Your task to perform on an android device: Clear the shopping cart on bestbuy. Search for "lg ultragear" on bestbuy, select the first entry, add it to the cart, then select checkout. Image 0: 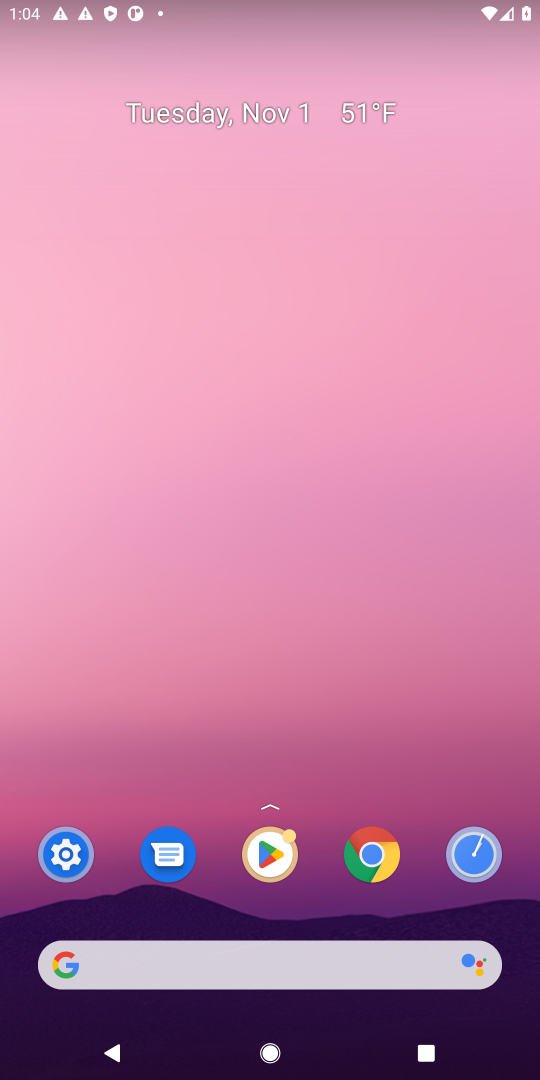
Step 0: click (164, 480)
Your task to perform on an android device: Clear the shopping cart on bestbuy. Search for "lg ultragear" on bestbuy, select the first entry, add it to the cart, then select checkout. Image 1: 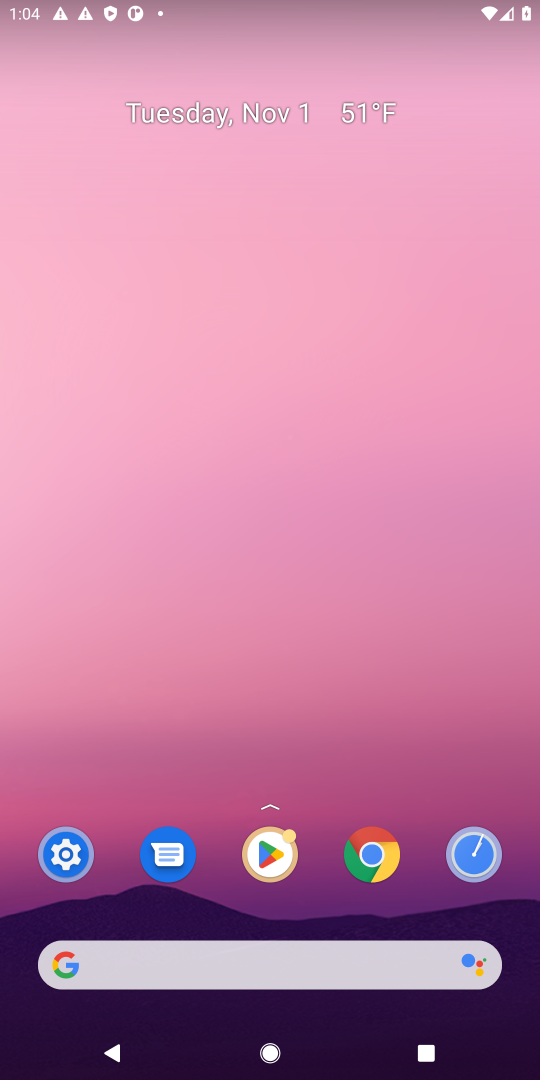
Step 1: click (216, 962)
Your task to perform on an android device: Clear the shopping cart on bestbuy. Search for "lg ultragear" on bestbuy, select the first entry, add it to the cart, then select checkout. Image 2: 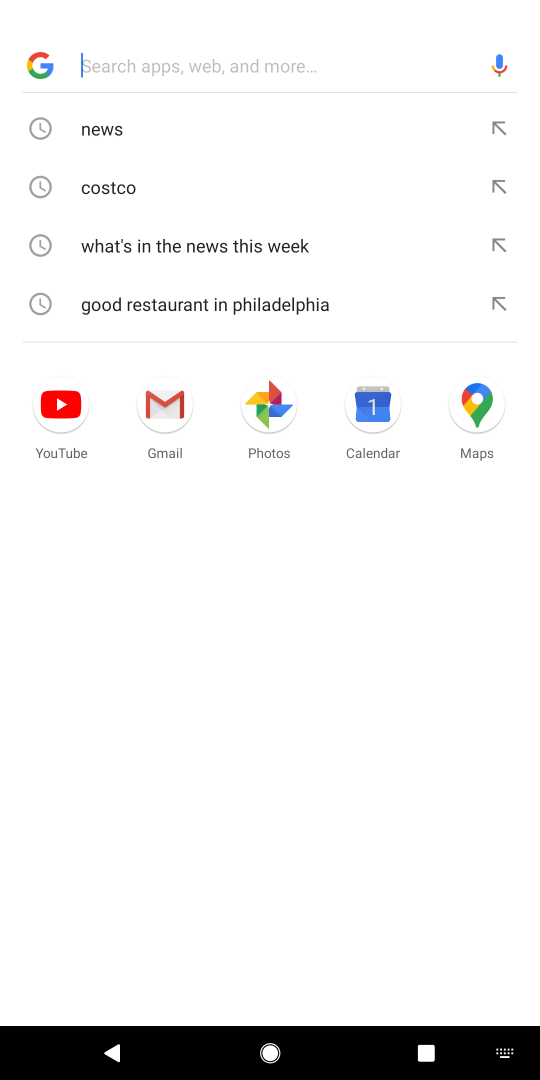
Step 2: type "bestbuy"
Your task to perform on an android device: Clear the shopping cart on bestbuy. Search for "lg ultragear" on bestbuy, select the first entry, add it to the cart, then select checkout. Image 3: 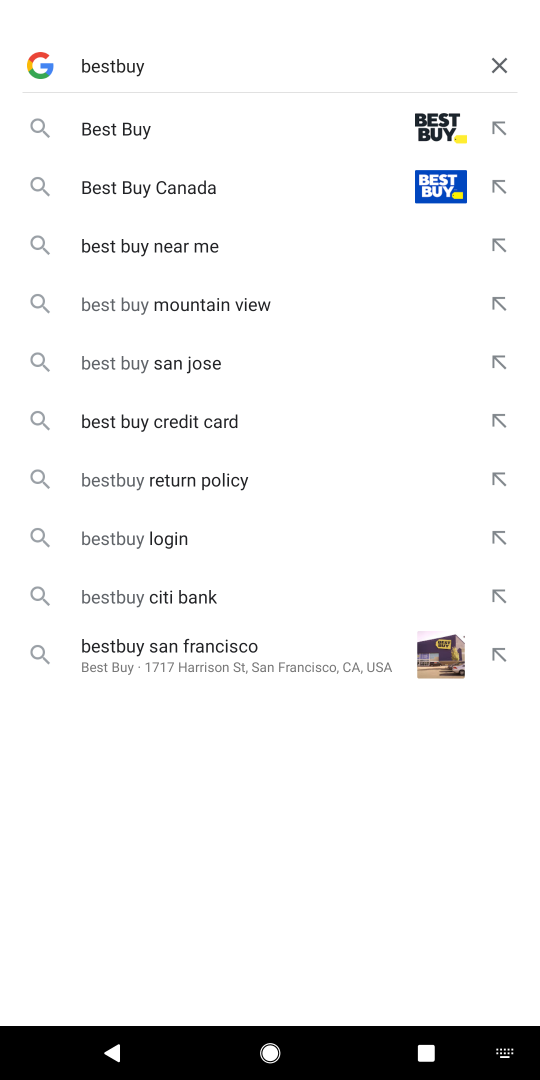
Step 3: click (130, 122)
Your task to perform on an android device: Clear the shopping cart on bestbuy. Search for "lg ultragear" on bestbuy, select the first entry, add it to the cart, then select checkout. Image 4: 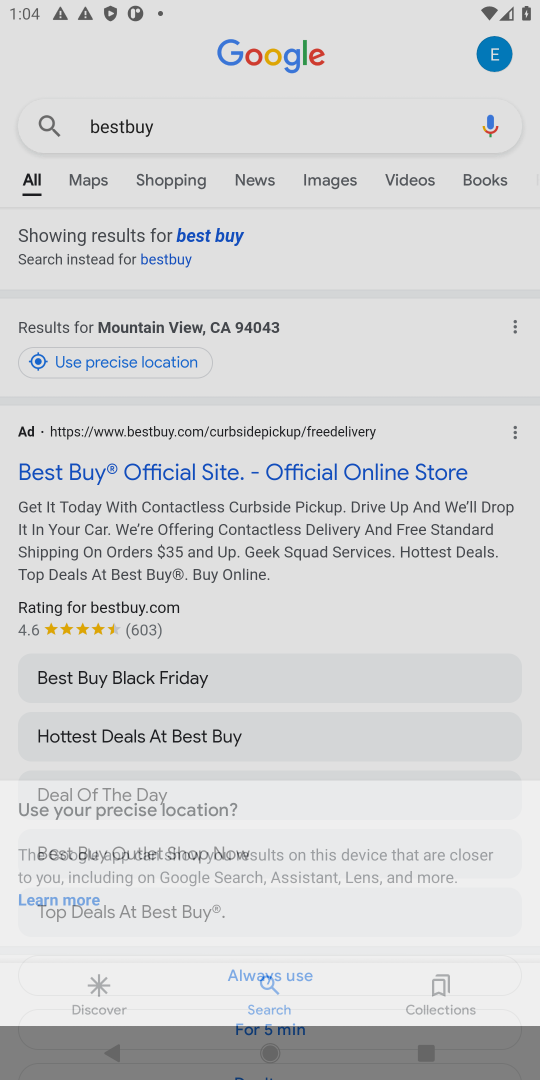
Step 4: click (131, 473)
Your task to perform on an android device: Clear the shopping cart on bestbuy. Search for "lg ultragear" on bestbuy, select the first entry, add it to the cart, then select checkout. Image 5: 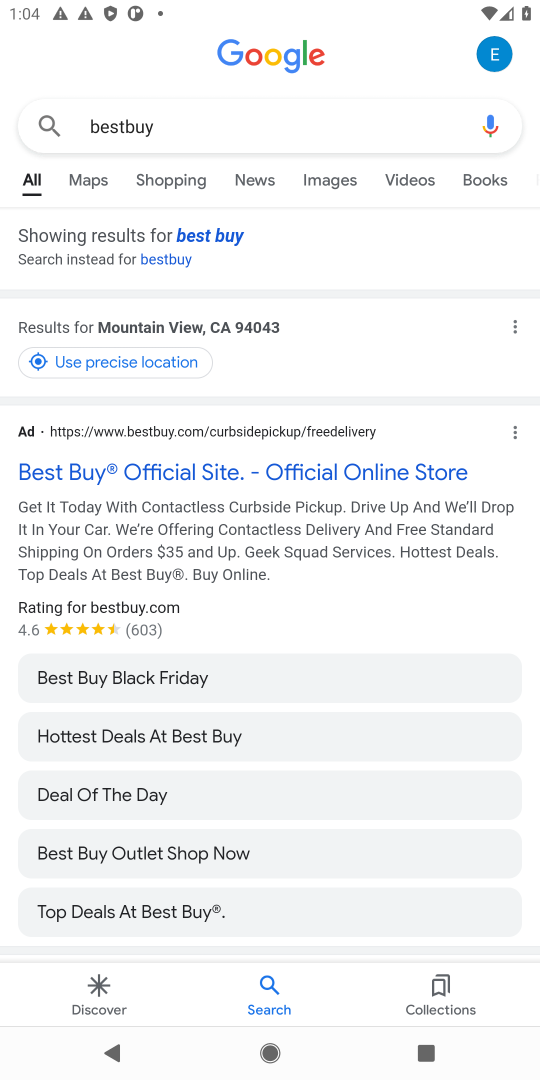
Step 5: click (212, 467)
Your task to perform on an android device: Clear the shopping cart on bestbuy. Search for "lg ultragear" on bestbuy, select the first entry, add it to the cart, then select checkout. Image 6: 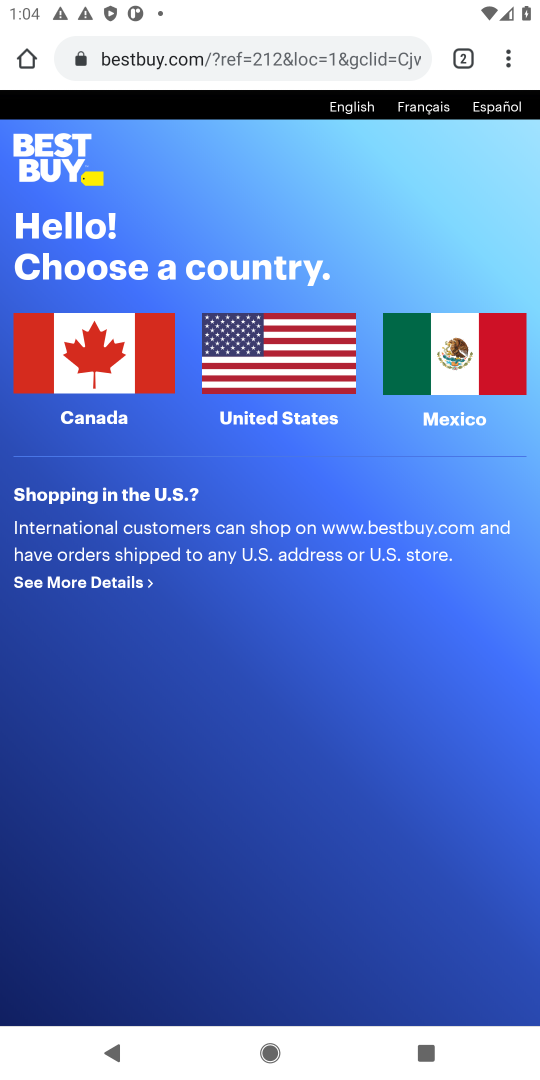
Step 6: click (288, 340)
Your task to perform on an android device: Clear the shopping cart on bestbuy. Search for "lg ultragear" on bestbuy, select the first entry, add it to the cart, then select checkout. Image 7: 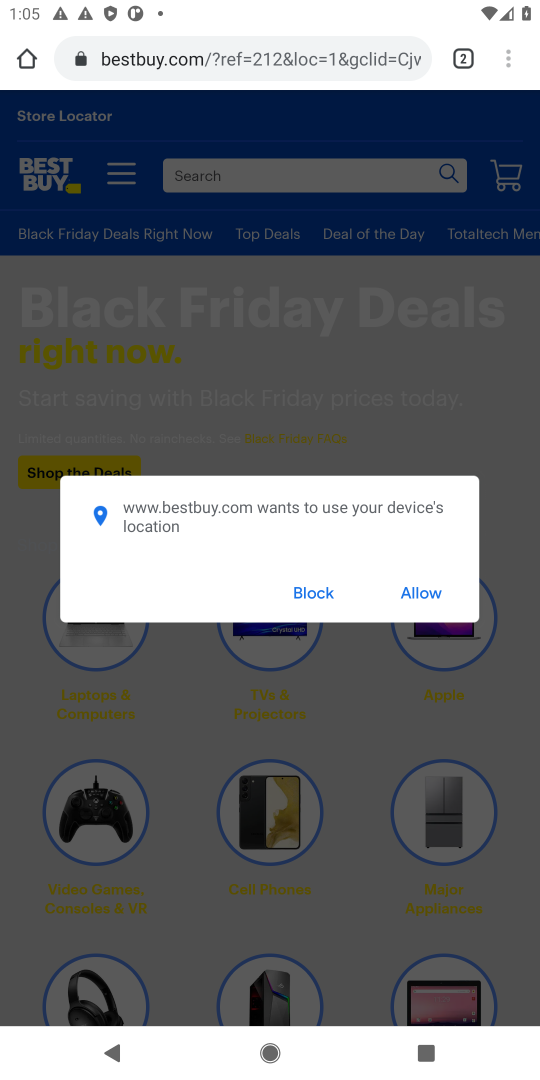
Step 7: click (277, 157)
Your task to perform on an android device: Clear the shopping cart on bestbuy. Search for "lg ultragear" on bestbuy, select the first entry, add it to the cart, then select checkout. Image 8: 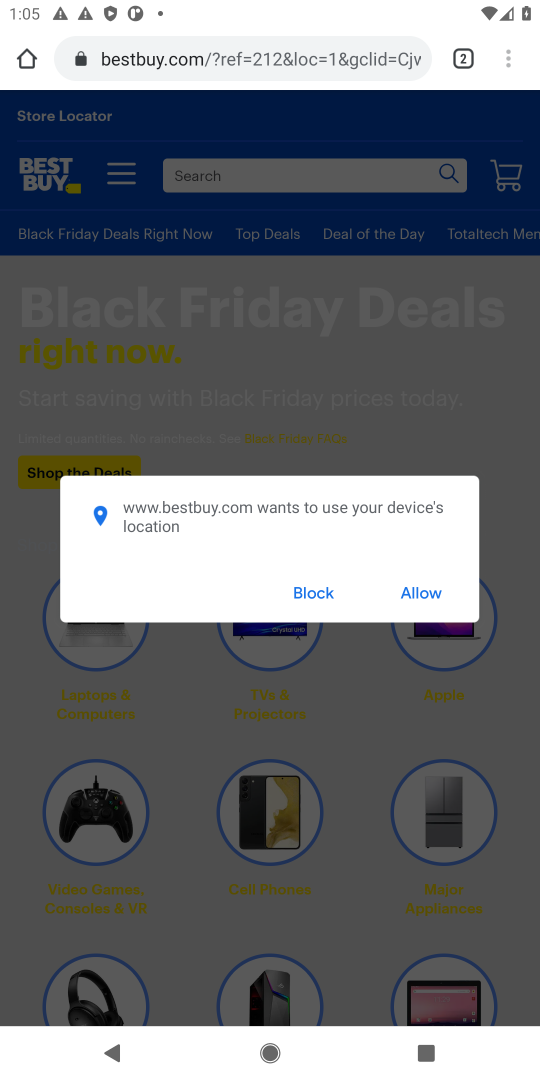
Step 8: click (429, 593)
Your task to perform on an android device: Clear the shopping cart on bestbuy. Search for "lg ultragear" on bestbuy, select the first entry, add it to the cart, then select checkout. Image 9: 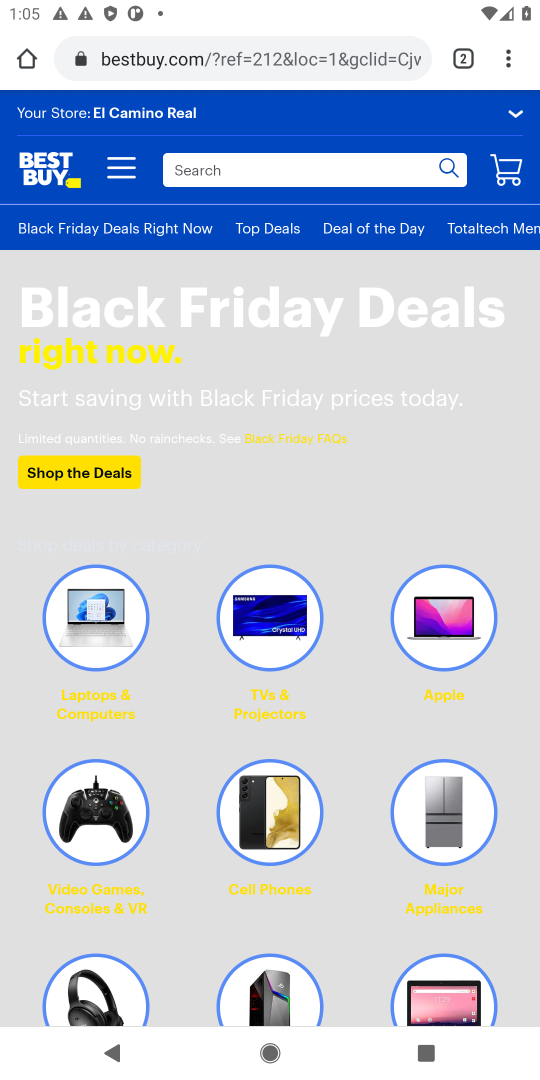
Step 9: click (288, 160)
Your task to perform on an android device: Clear the shopping cart on bestbuy. Search for "lg ultragear" on bestbuy, select the first entry, add it to the cart, then select checkout. Image 10: 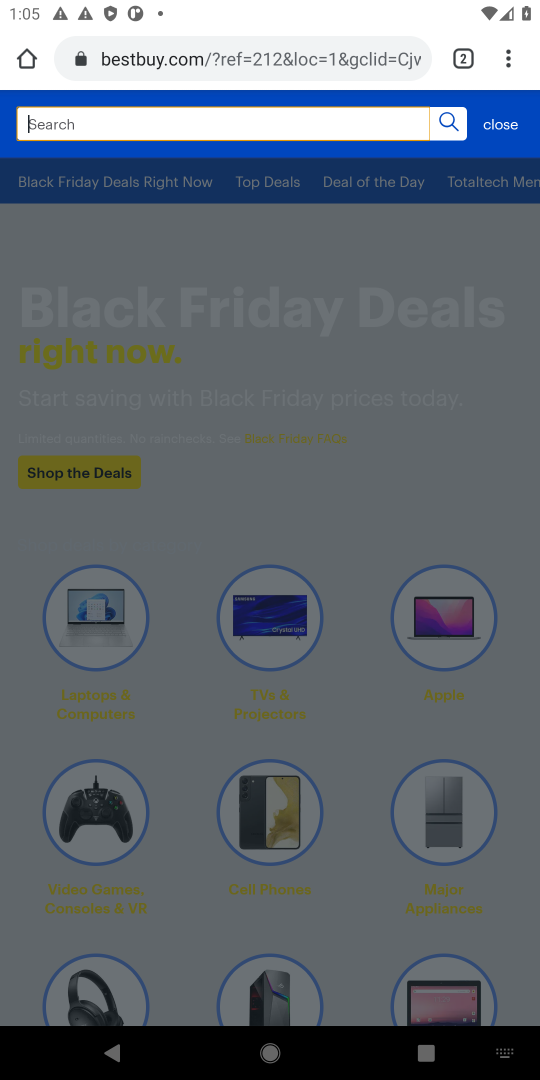
Step 10: type "lg u"
Your task to perform on an android device: Clear the shopping cart on bestbuy. Search for "lg ultragear" on bestbuy, select the first entry, add it to the cart, then select checkout. Image 11: 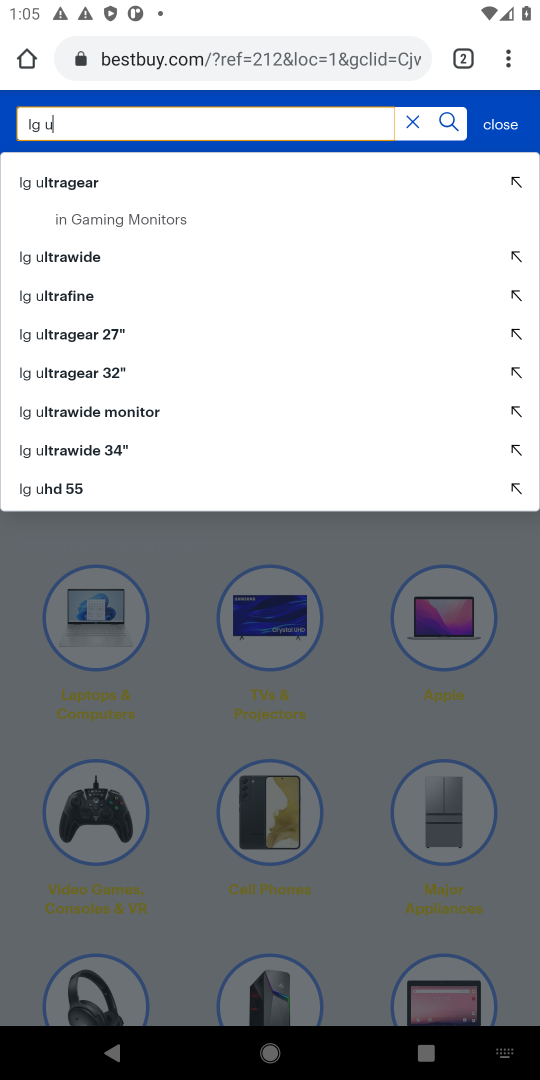
Step 11: click (69, 182)
Your task to perform on an android device: Clear the shopping cart on bestbuy. Search for "lg ultragear" on bestbuy, select the first entry, add it to the cart, then select checkout. Image 12: 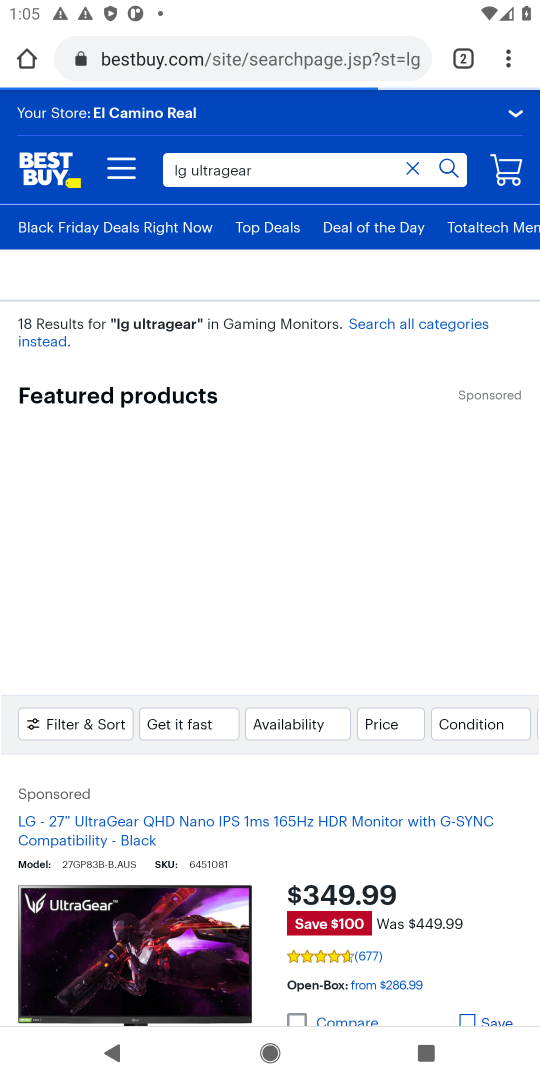
Step 12: drag from (497, 873) to (461, 571)
Your task to perform on an android device: Clear the shopping cart on bestbuy. Search for "lg ultragear" on bestbuy, select the first entry, add it to the cart, then select checkout. Image 13: 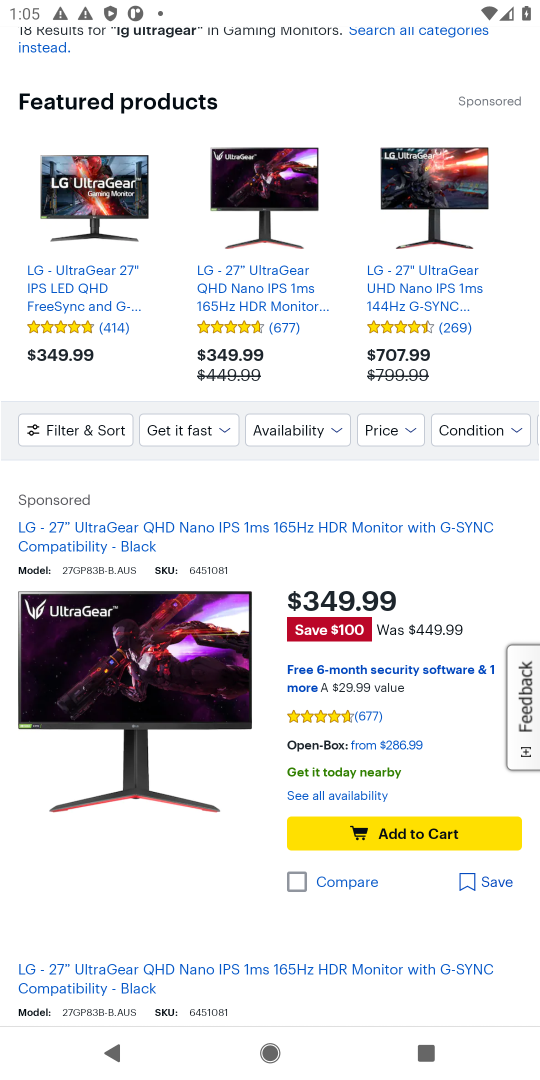
Step 13: click (395, 833)
Your task to perform on an android device: Clear the shopping cart on bestbuy. Search for "lg ultragear" on bestbuy, select the first entry, add it to the cart, then select checkout. Image 14: 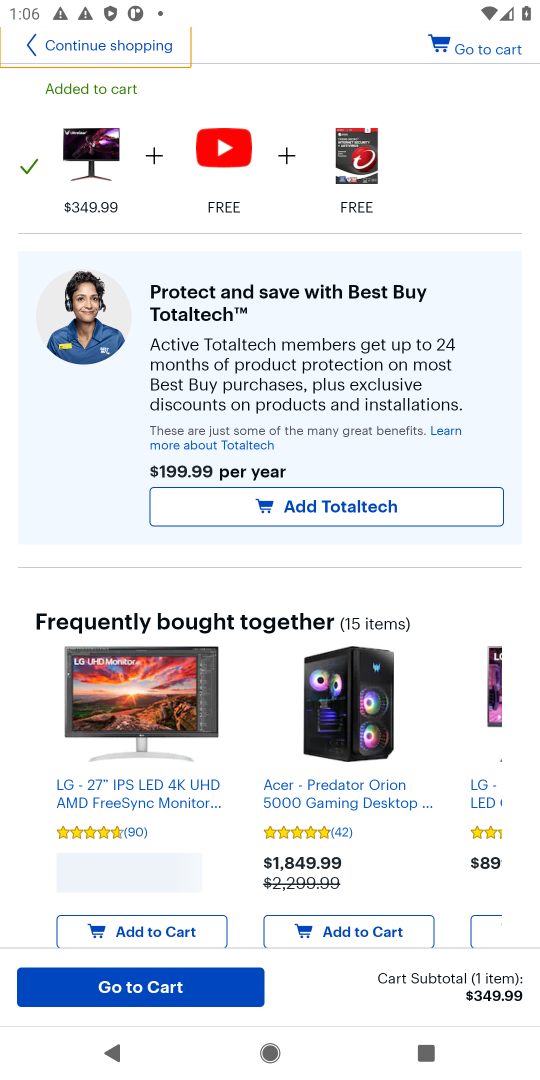
Step 14: click (101, 989)
Your task to perform on an android device: Clear the shopping cart on bestbuy. Search for "lg ultragear" on bestbuy, select the first entry, add it to the cart, then select checkout. Image 15: 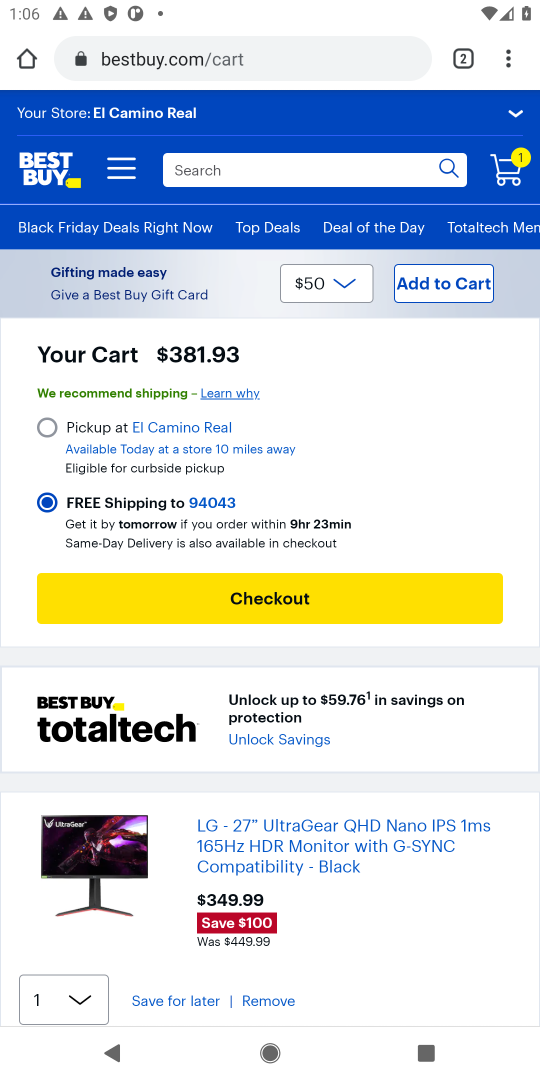
Step 15: click (293, 593)
Your task to perform on an android device: Clear the shopping cart on bestbuy. Search for "lg ultragear" on bestbuy, select the first entry, add it to the cart, then select checkout. Image 16: 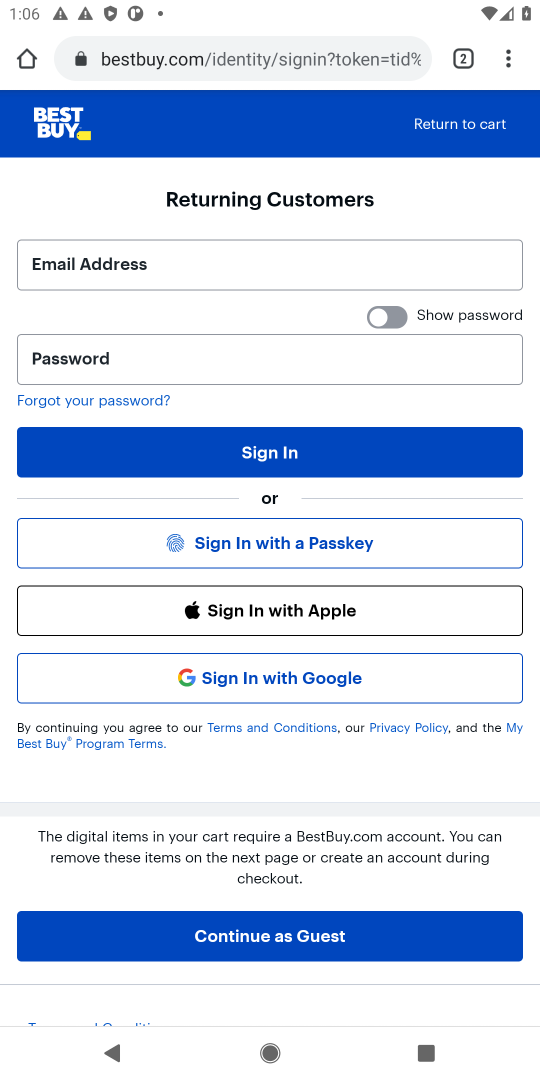
Step 16: task complete